Your task to perform on an android device: Go to wifi settings Image 0: 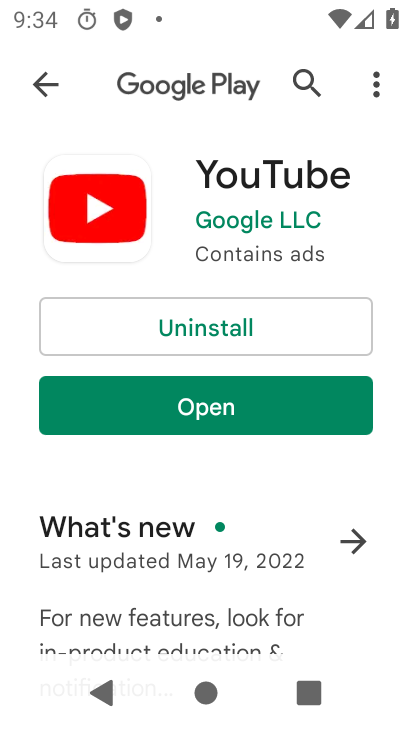
Step 0: press back button
Your task to perform on an android device: Go to wifi settings Image 1: 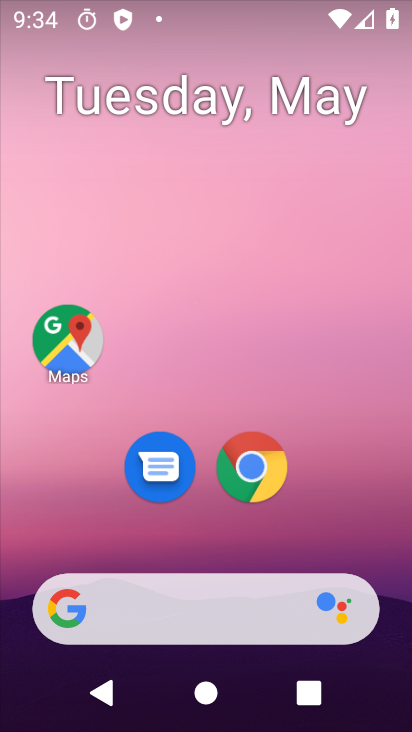
Step 1: drag from (357, 489) to (246, 25)
Your task to perform on an android device: Go to wifi settings Image 2: 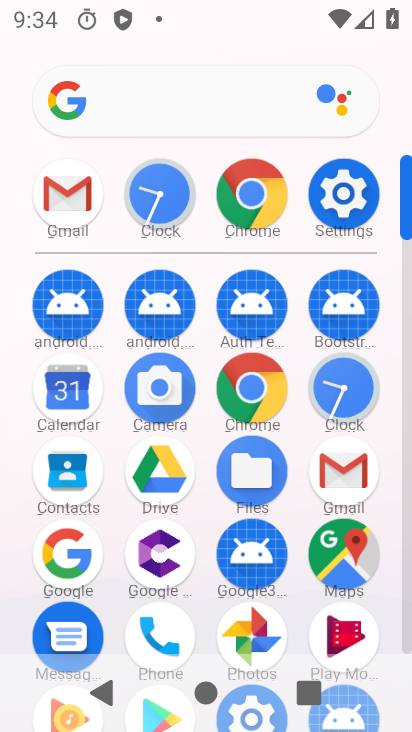
Step 2: drag from (5, 536) to (0, 203)
Your task to perform on an android device: Go to wifi settings Image 3: 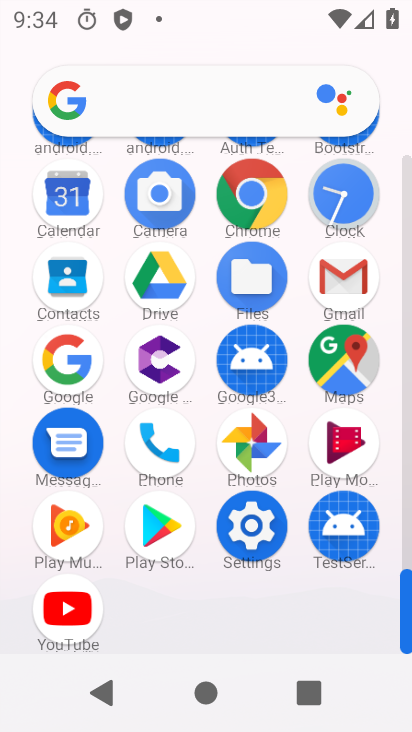
Step 3: click (254, 526)
Your task to perform on an android device: Go to wifi settings Image 4: 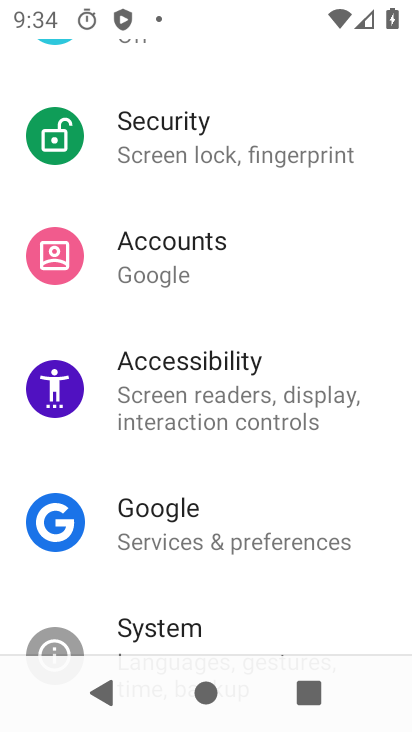
Step 4: drag from (256, 173) to (241, 576)
Your task to perform on an android device: Go to wifi settings Image 5: 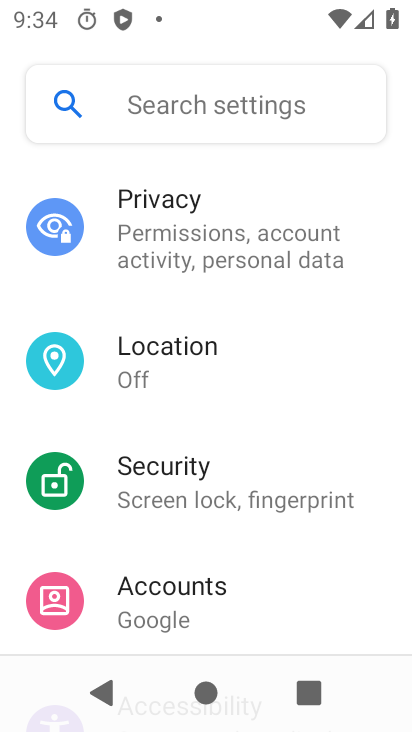
Step 5: drag from (283, 251) to (255, 609)
Your task to perform on an android device: Go to wifi settings Image 6: 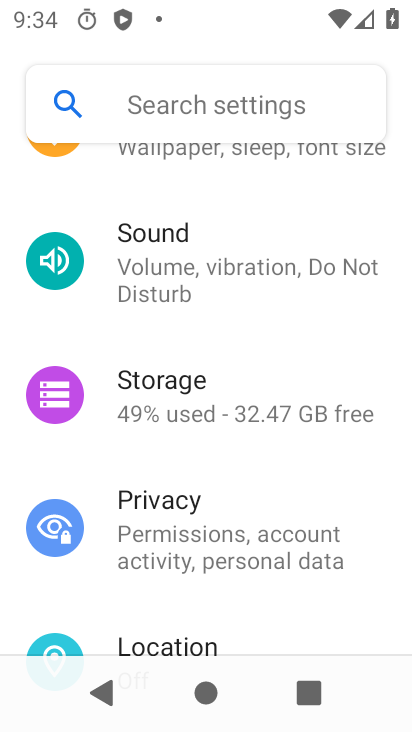
Step 6: drag from (270, 260) to (257, 661)
Your task to perform on an android device: Go to wifi settings Image 7: 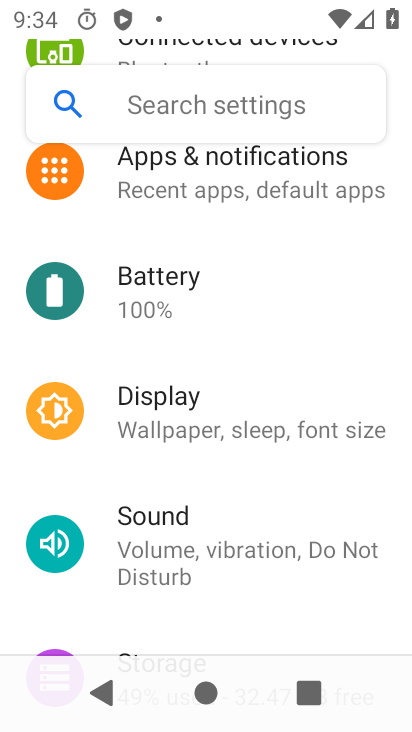
Step 7: drag from (278, 281) to (279, 615)
Your task to perform on an android device: Go to wifi settings Image 8: 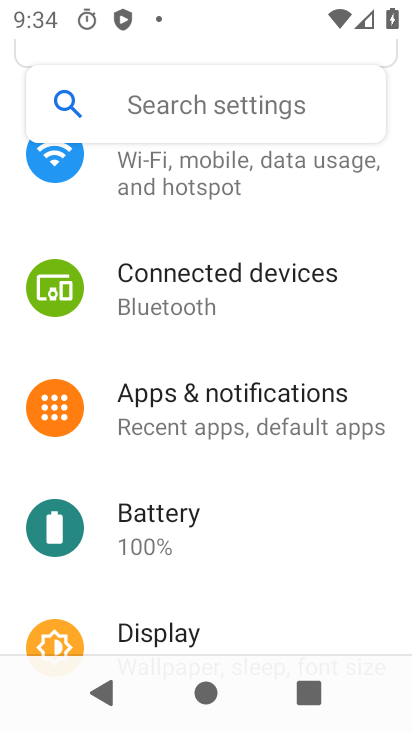
Step 8: drag from (273, 275) to (264, 595)
Your task to perform on an android device: Go to wifi settings Image 9: 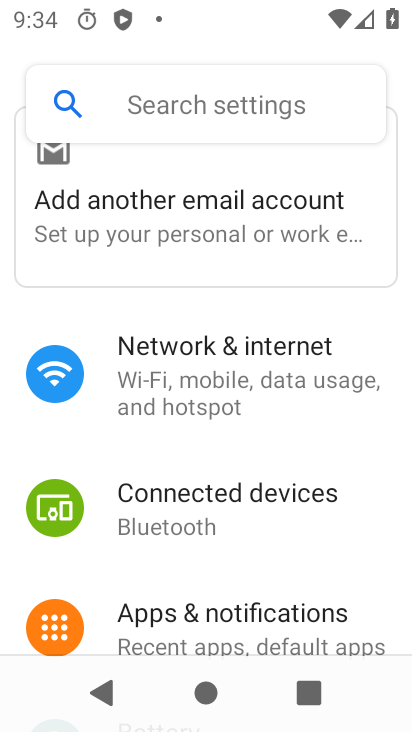
Step 9: click (198, 360)
Your task to perform on an android device: Go to wifi settings Image 10: 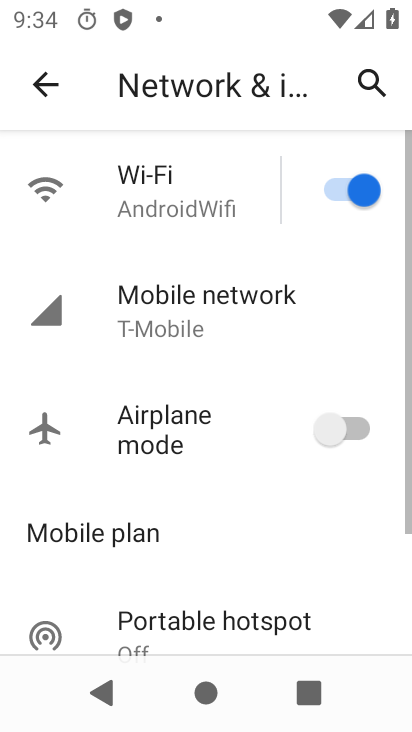
Step 10: click (161, 174)
Your task to perform on an android device: Go to wifi settings Image 11: 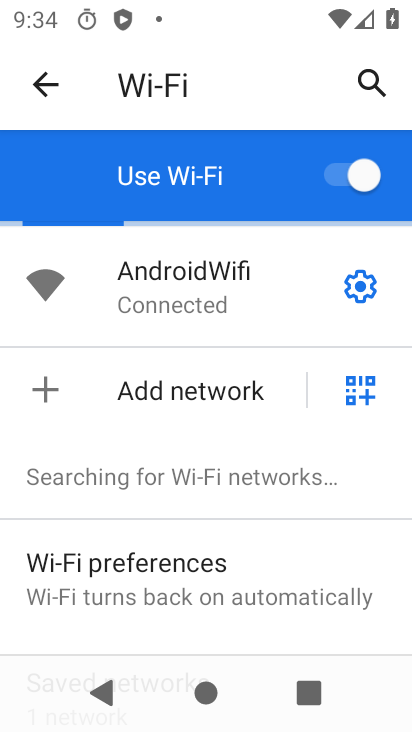
Step 11: task complete